Your task to perform on an android device: open app "Duolingo: language lessons" Image 0: 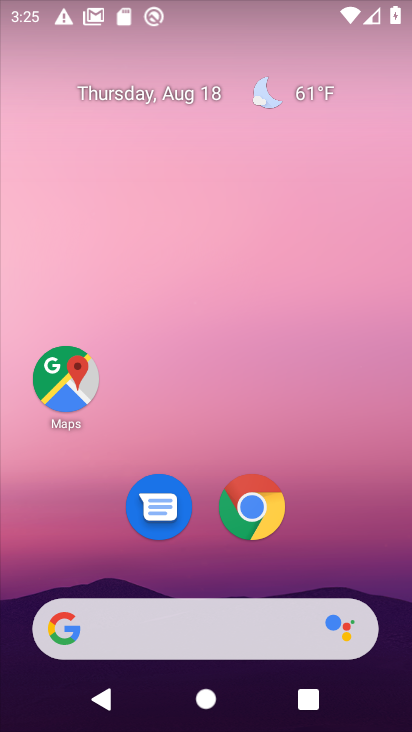
Step 0: drag from (209, 473) to (333, 4)
Your task to perform on an android device: open app "Duolingo: language lessons" Image 1: 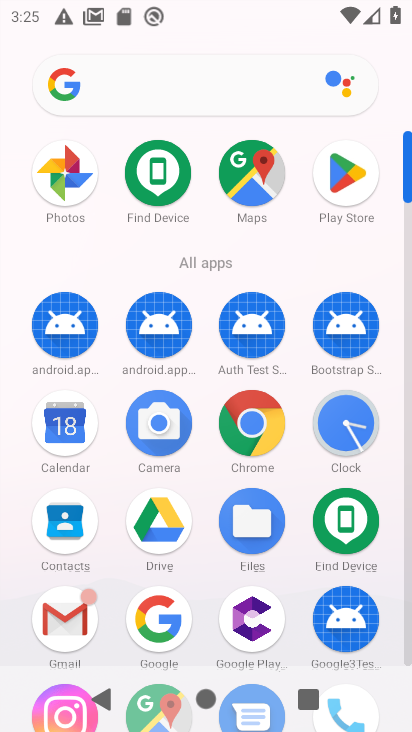
Step 1: click (353, 185)
Your task to perform on an android device: open app "Duolingo: language lessons" Image 2: 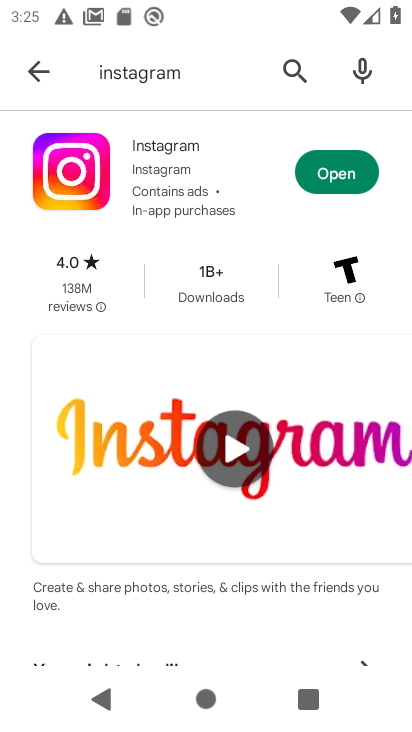
Step 2: click (330, 178)
Your task to perform on an android device: open app "Duolingo: language lessons" Image 3: 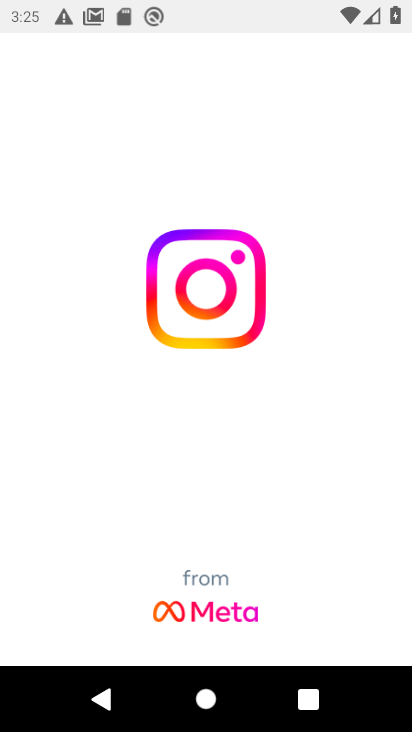
Step 3: press back button
Your task to perform on an android device: open app "Duolingo: language lessons" Image 4: 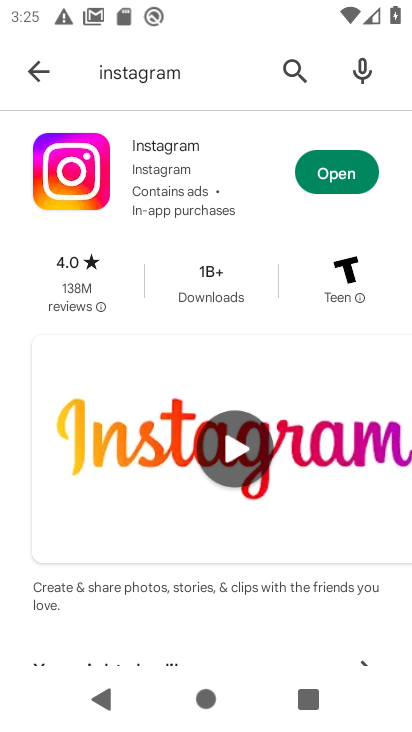
Step 4: click (285, 64)
Your task to perform on an android device: open app "Duolingo: language lessons" Image 5: 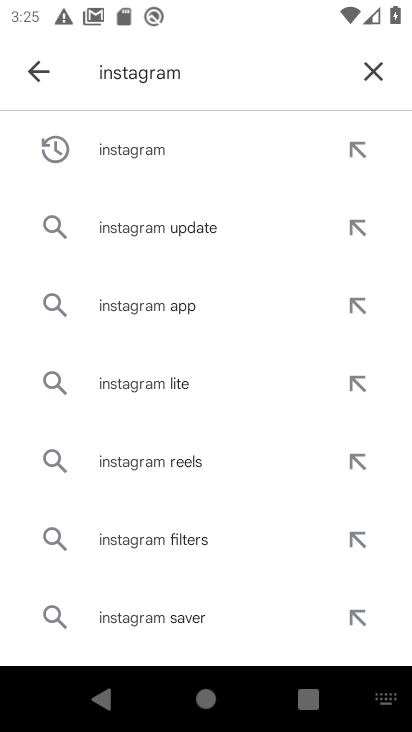
Step 5: click (366, 74)
Your task to perform on an android device: open app "Duolingo: language lessons" Image 6: 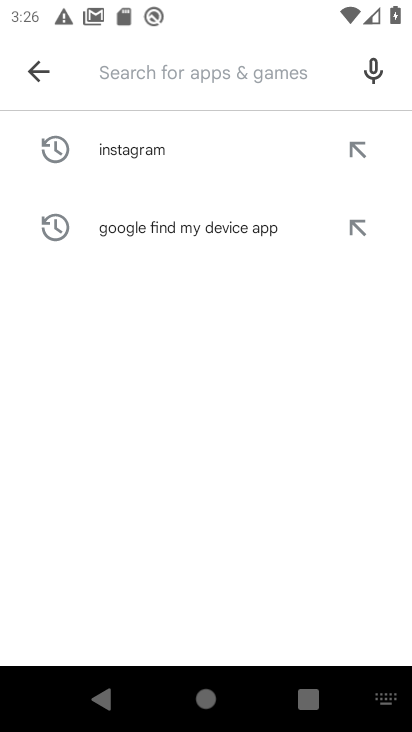
Step 6: click (209, 78)
Your task to perform on an android device: open app "Duolingo: language lessons" Image 7: 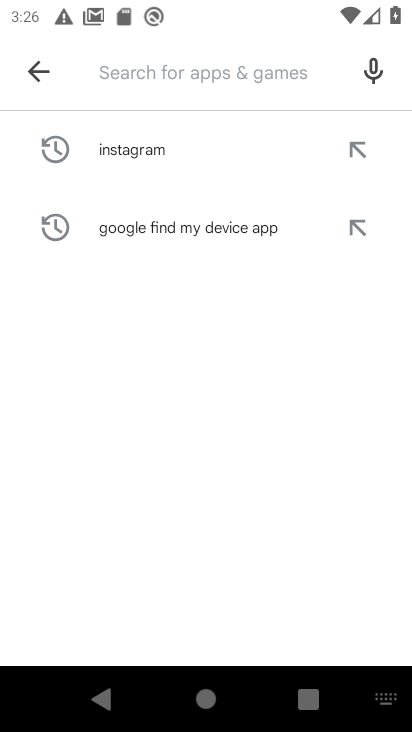
Step 7: type "duolingo"
Your task to perform on an android device: open app "Duolingo: language lessons" Image 8: 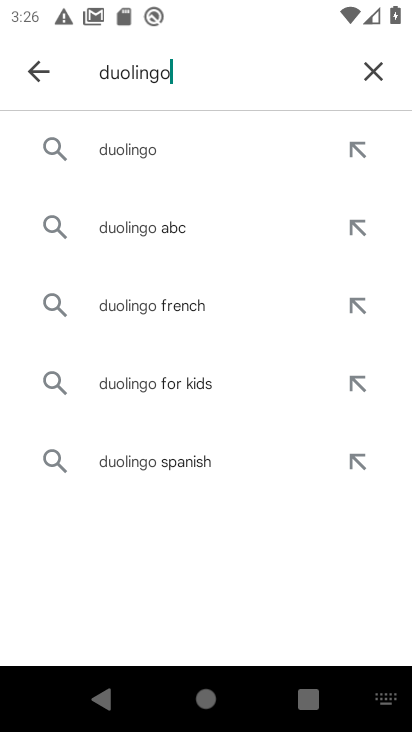
Step 8: click (134, 139)
Your task to perform on an android device: open app "Duolingo: language lessons" Image 9: 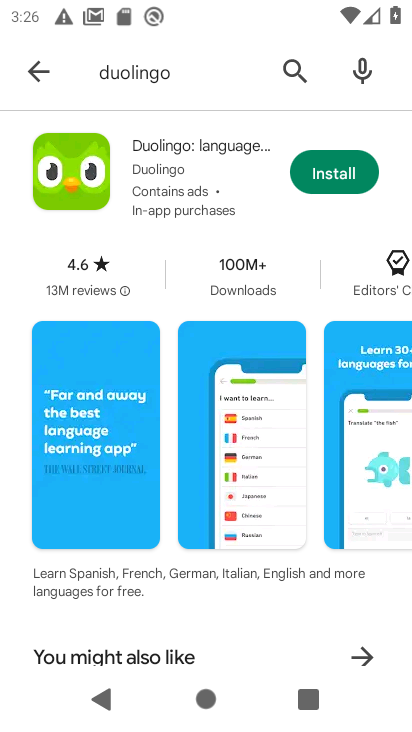
Step 9: task complete